Your task to perform on an android device: open app "Cash App" (install if not already installed) and go to login screen Image 0: 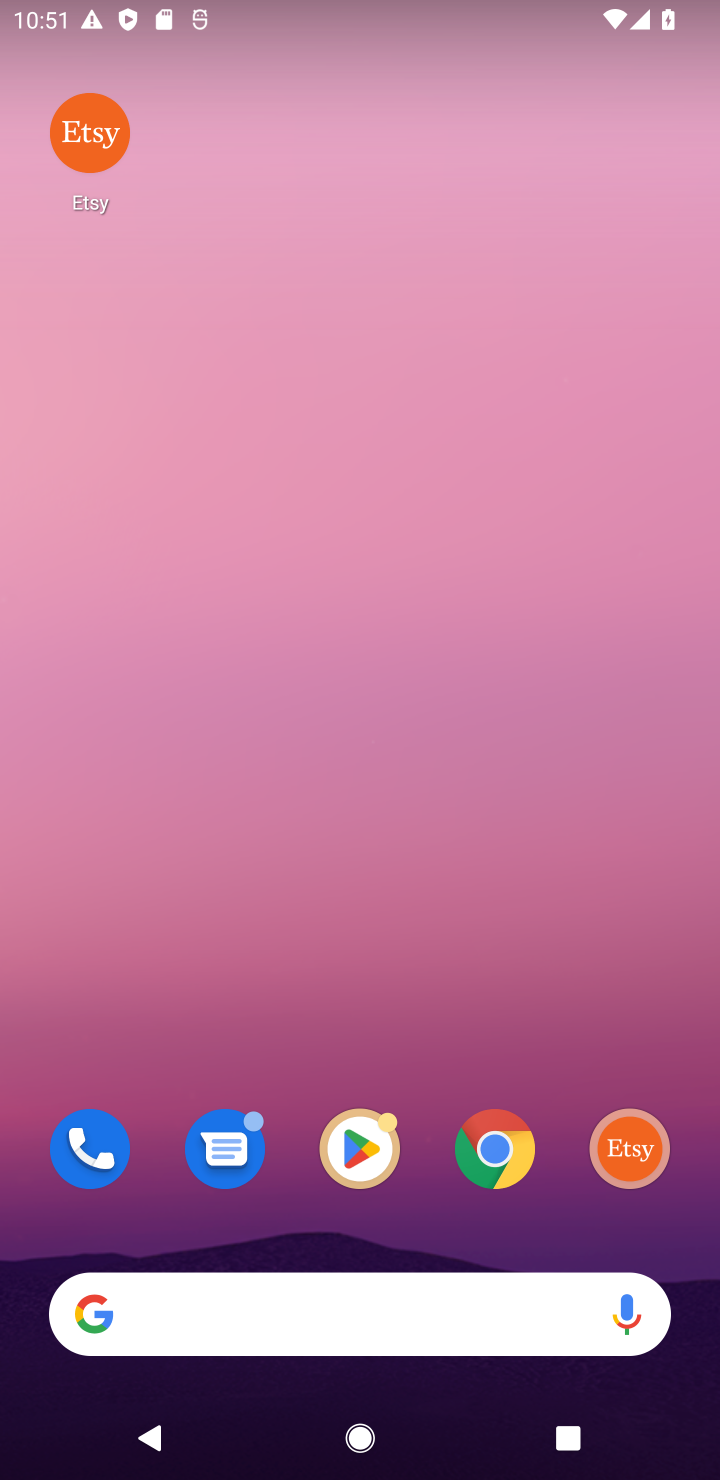
Step 0: click (371, 1147)
Your task to perform on an android device: open app "Cash App" (install if not already installed) and go to login screen Image 1: 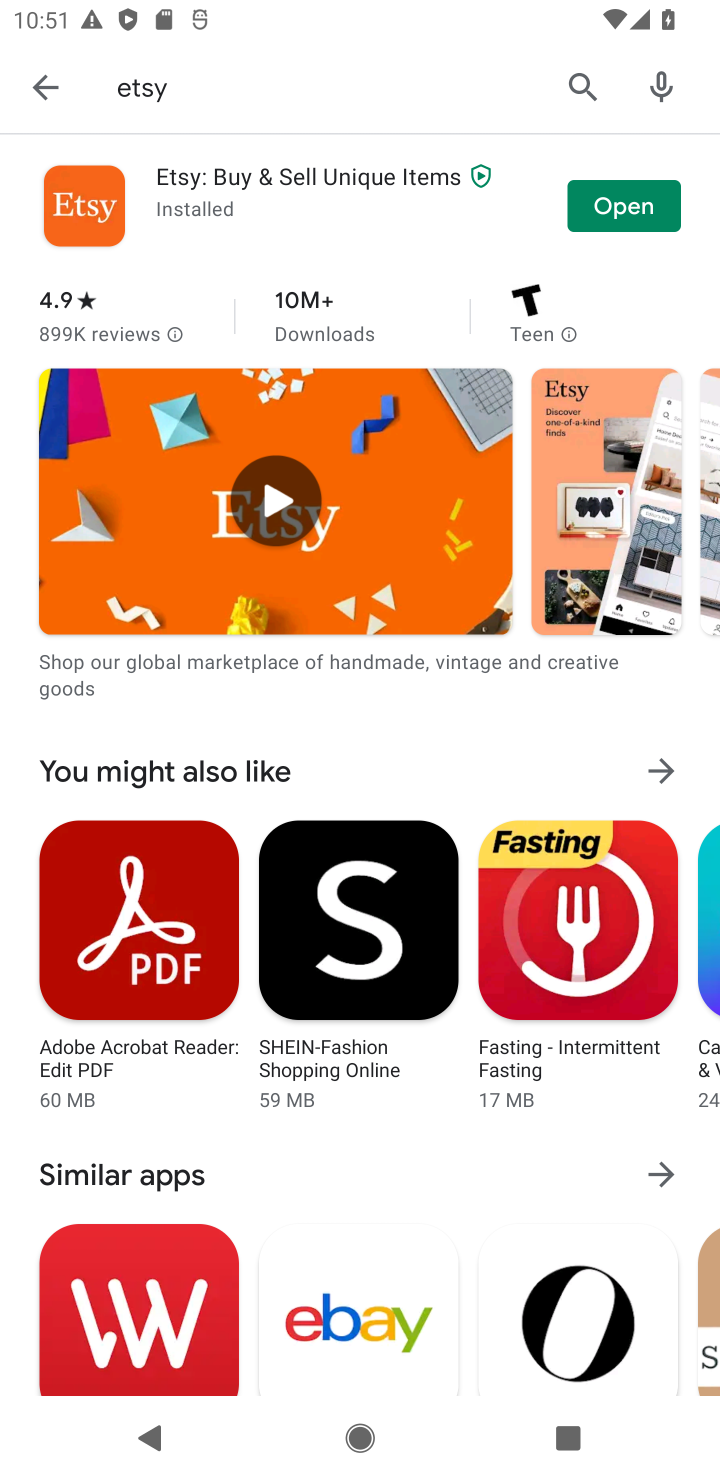
Step 1: click (34, 78)
Your task to perform on an android device: open app "Cash App" (install if not already installed) and go to login screen Image 2: 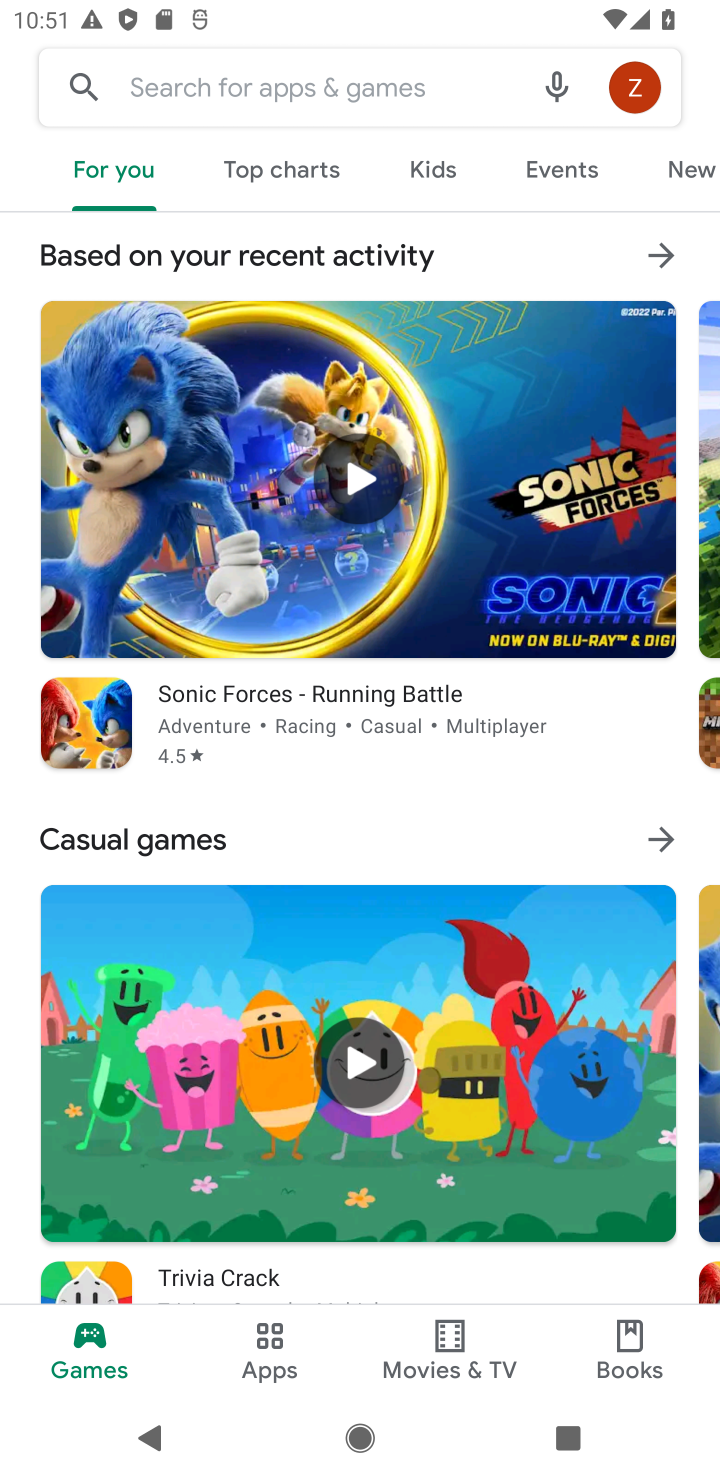
Step 2: click (225, 63)
Your task to perform on an android device: open app "Cash App" (install if not already installed) and go to login screen Image 3: 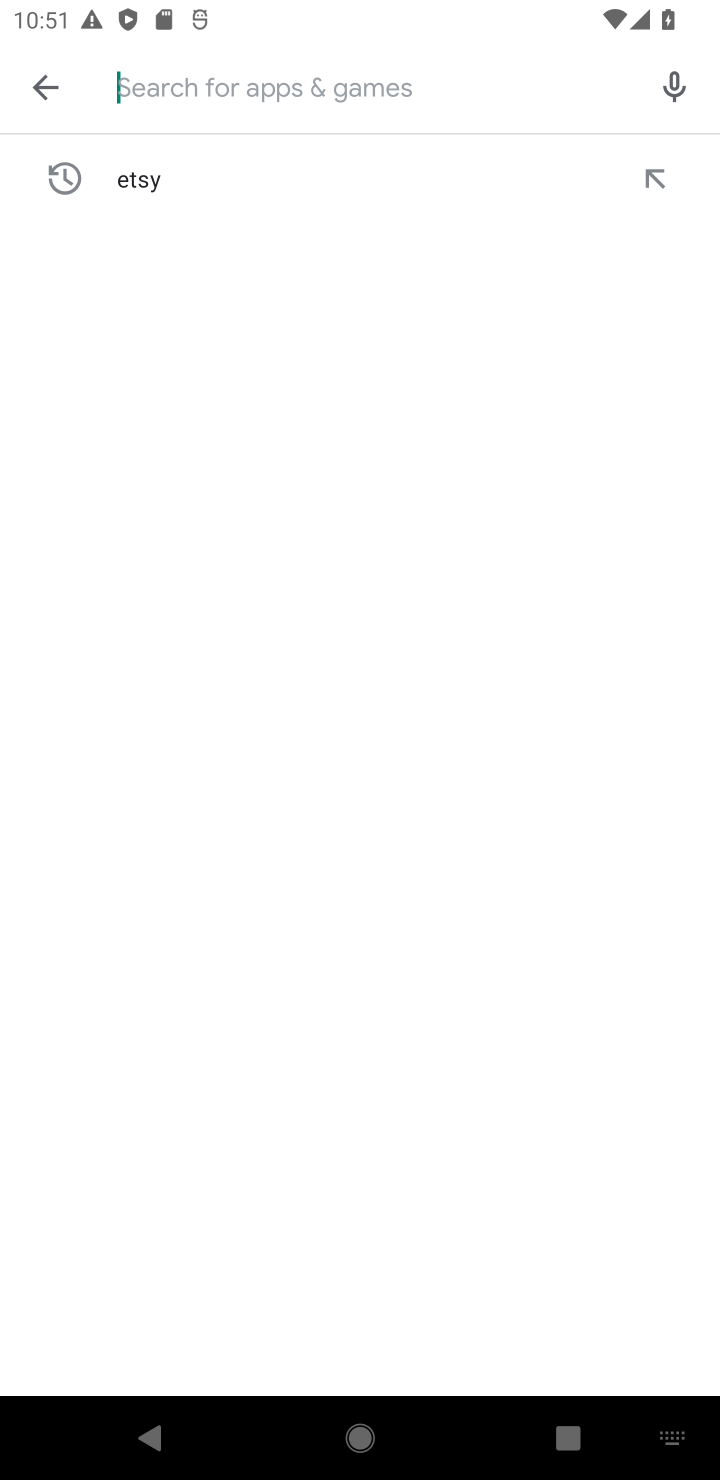
Step 3: type "Cash App"
Your task to perform on an android device: open app "Cash App" (install if not already installed) and go to login screen Image 4: 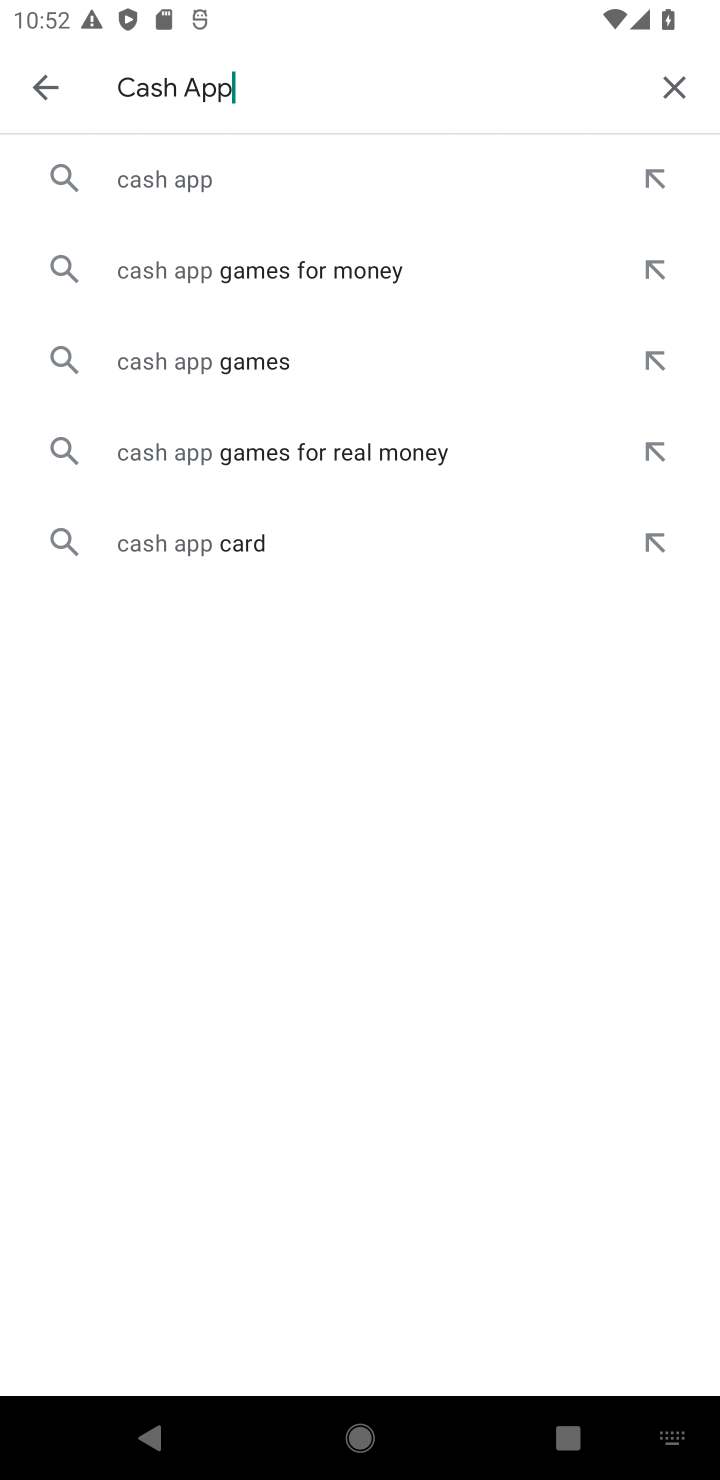
Step 4: click (184, 160)
Your task to perform on an android device: open app "Cash App" (install if not already installed) and go to login screen Image 5: 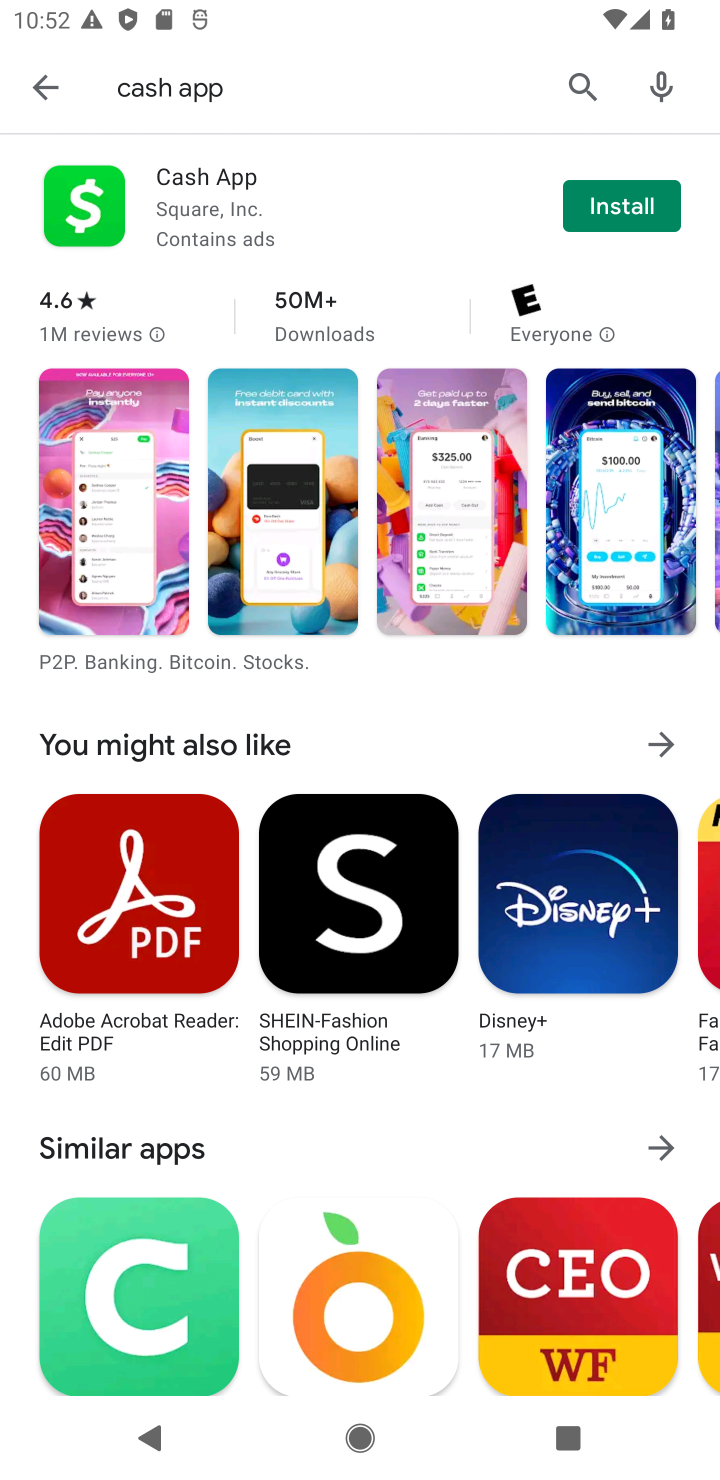
Step 5: click (597, 217)
Your task to perform on an android device: open app "Cash App" (install if not already installed) and go to login screen Image 6: 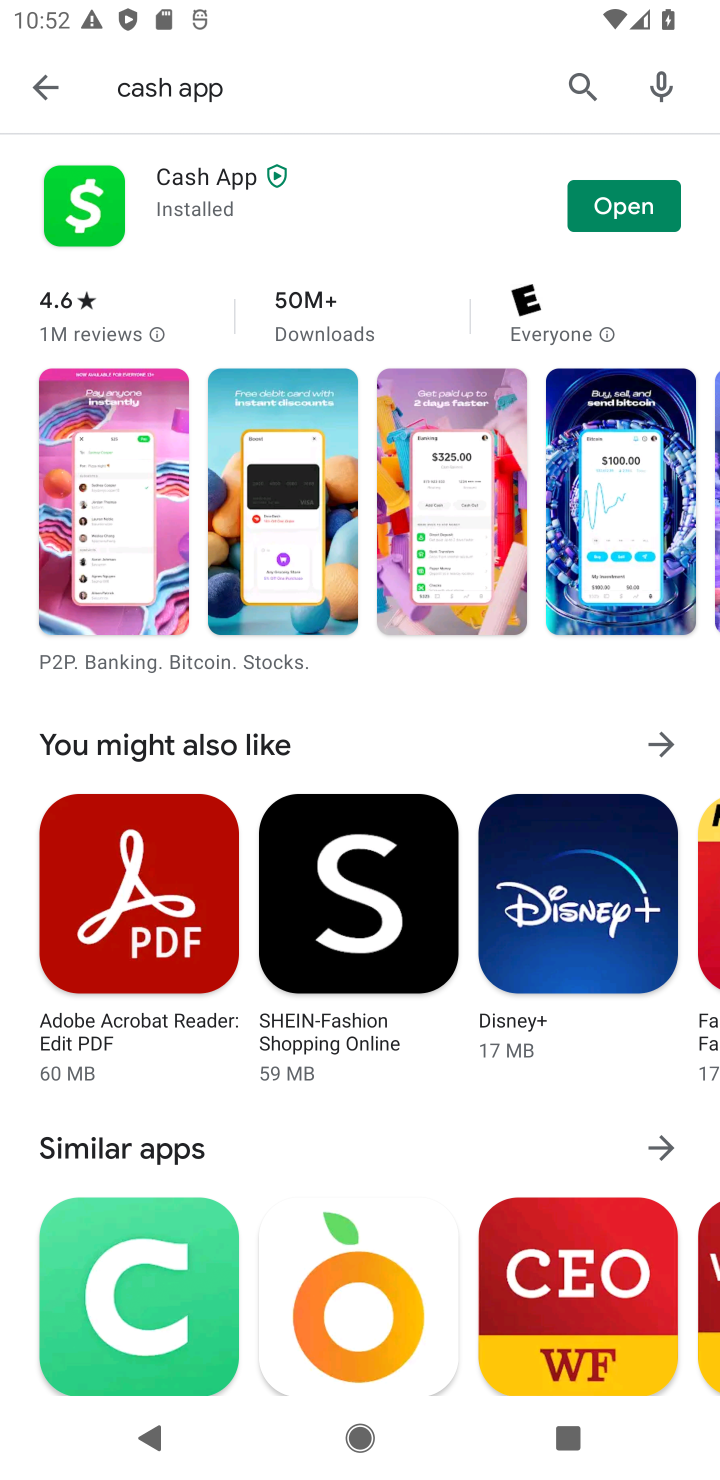
Step 6: click (597, 217)
Your task to perform on an android device: open app "Cash App" (install if not already installed) and go to login screen Image 7: 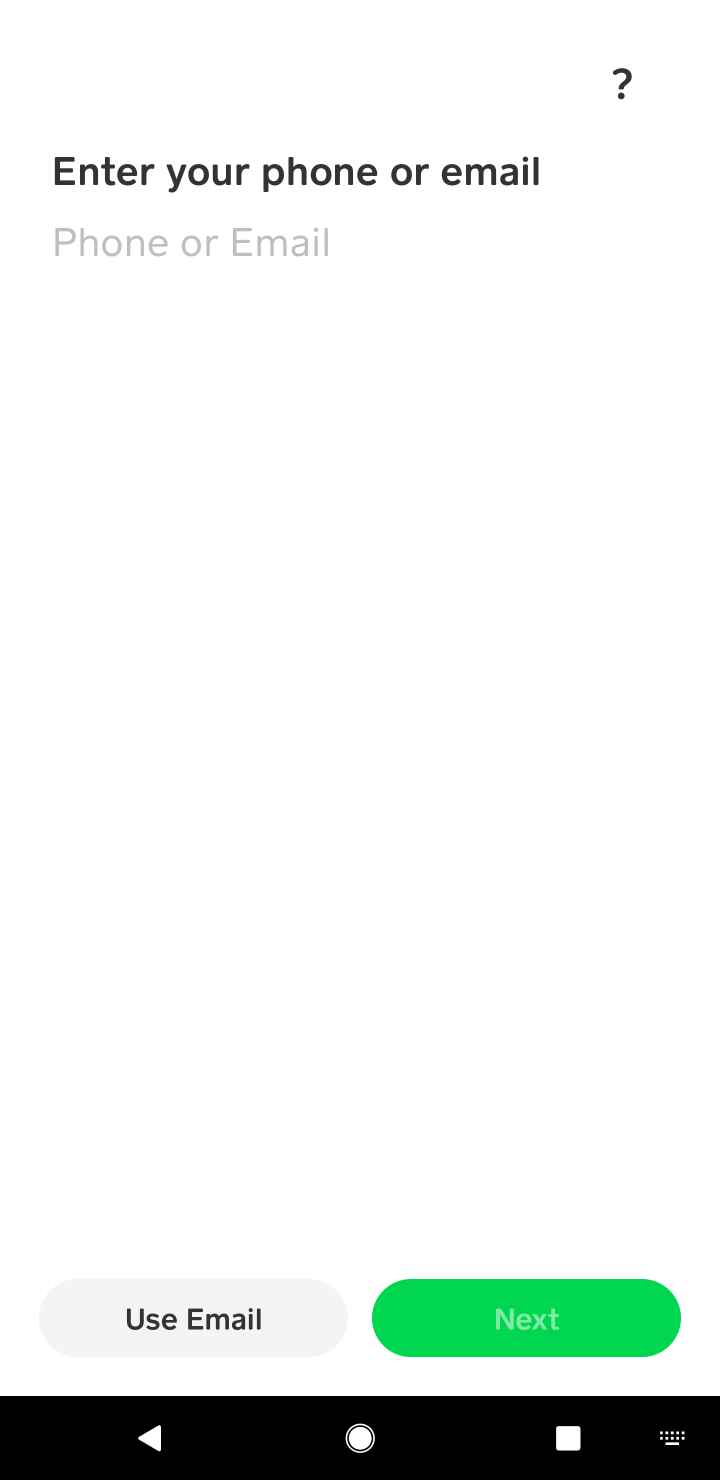
Step 7: task complete